Your task to perform on an android device: turn on sleep mode Image 0: 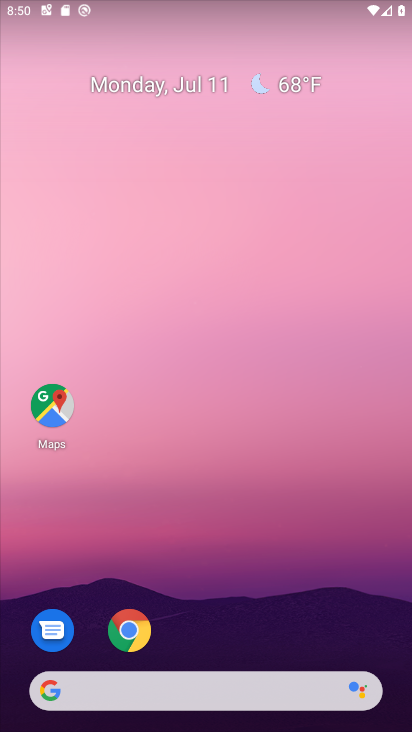
Step 0: drag from (176, 398) to (184, 29)
Your task to perform on an android device: turn on sleep mode Image 1: 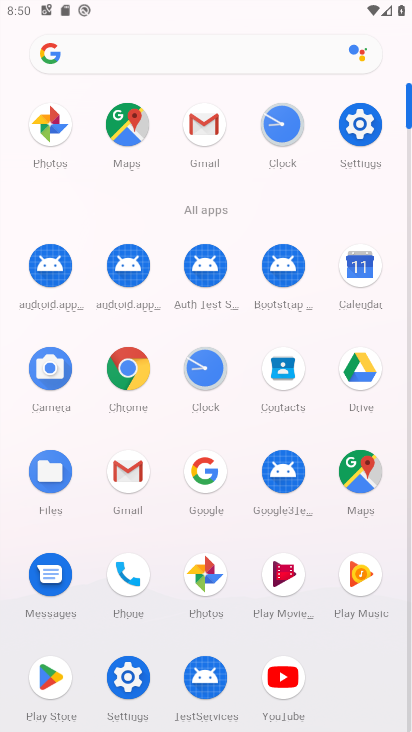
Step 1: click (357, 110)
Your task to perform on an android device: turn on sleep mode Image 2: 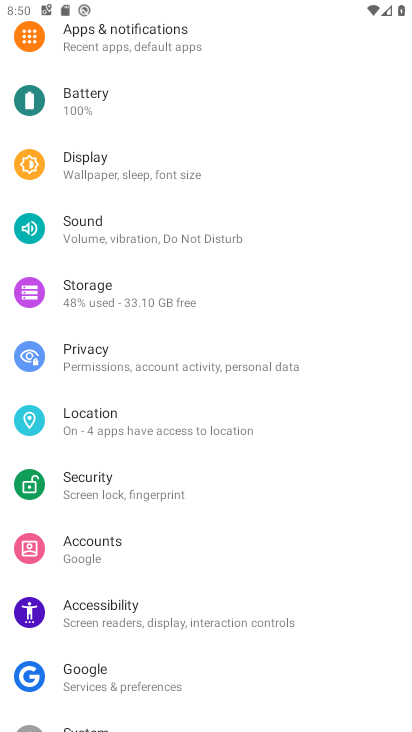
Step 2: drag from (212, 109) to (257, 723)
Your task to perform on an android device: turn on sleep mode Image 3: 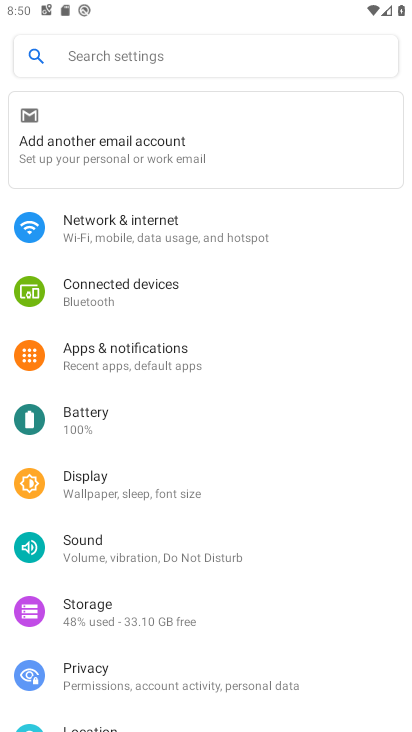
Step 3: click (217, 50)
Your task to perform on an android device: turn on sleep mode Image 4: 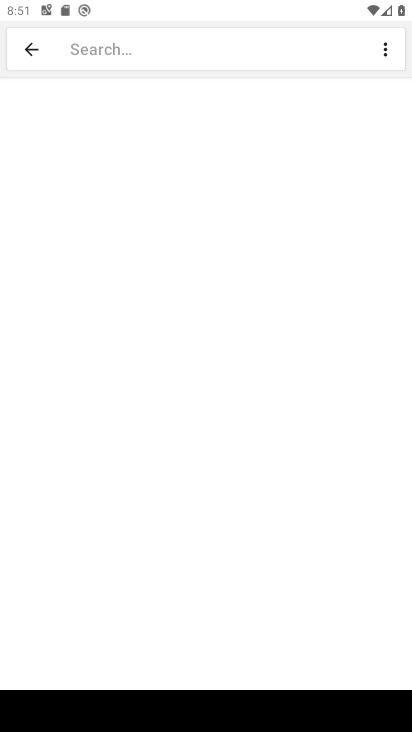
Step 4: type "sleep mode"
Your task to perform on an android device: turn on sleep mode Image 5: 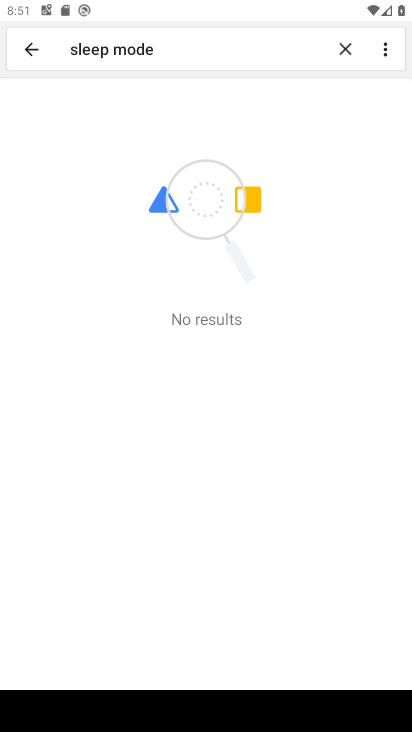
Step 5: task complete